Your task to perform on an android device: turn off sleep mode Image 0: 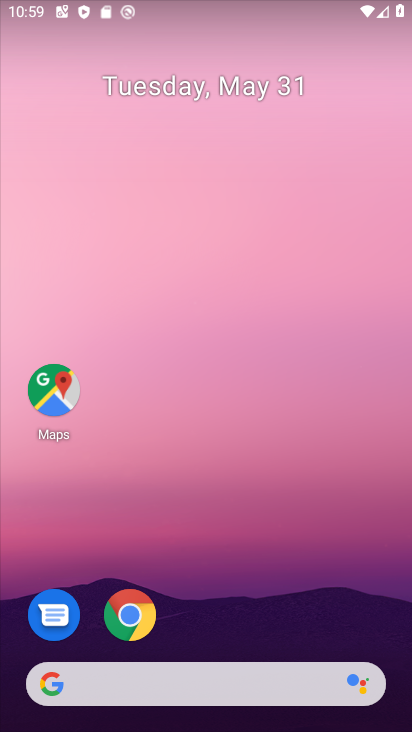
Step 0: drag from (241, 611) to (205, 303)
Your task to perform on an android device: turn off sleep mode Image 1: 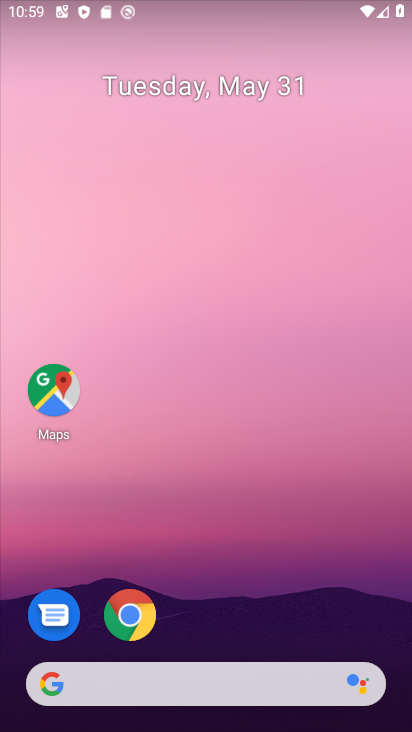
Step 1: drag from (284, 653) to (209, 159)
Your task to perform on an android device: turn off sleep mode Image 2: 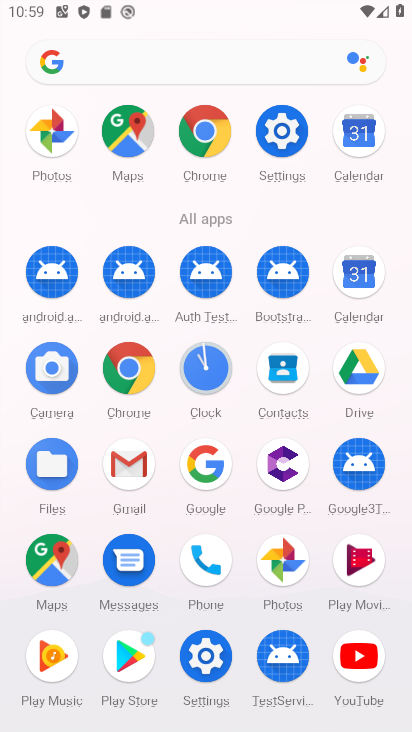
Step 2: click (279, 152)
Your task to perform on an android device: turn off sleep mode Image 3: 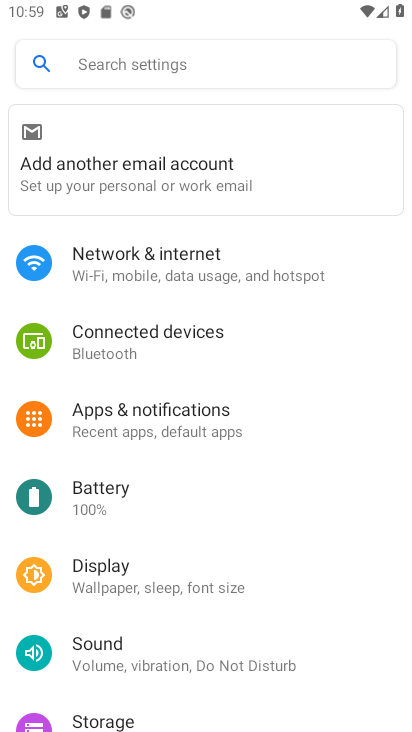
Step 3: task complete